Your task to perform on an android device: check out phone information Image 0: 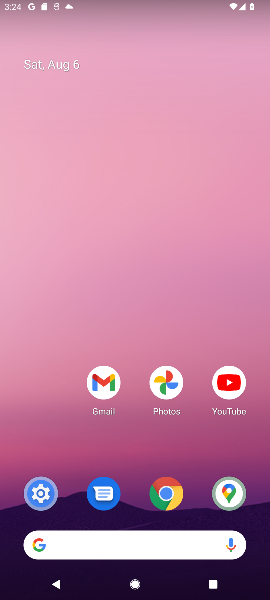
Step 0: drag from (204, 511) to (172, 39)
Your task to perform on an android device: check out phone information Image 1: 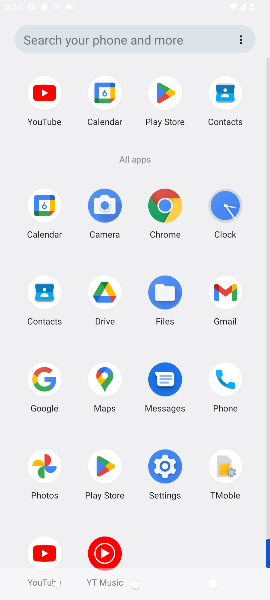
Step 1: drag from (166, 404) to (166, 36)
Your task to perform on an android device: check out phone information Image 2: 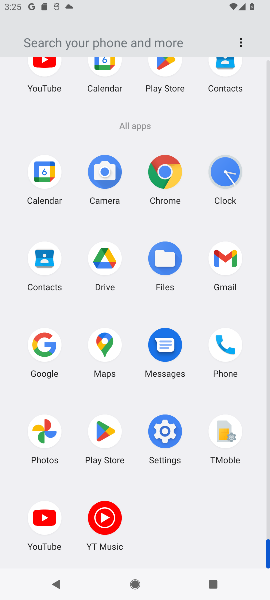
Step 2: click (162, 435)
Your task to perform on an android device: check out phone information Image 3: 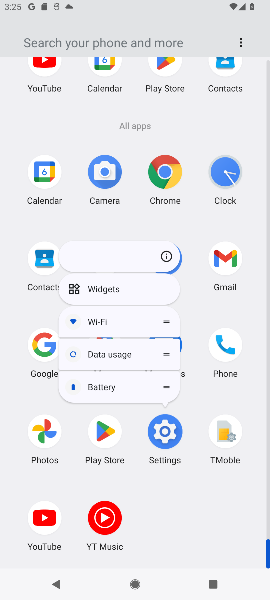
Step 3: click (162, 436)
Your task to perform on an android device: check out phone information Image 4: 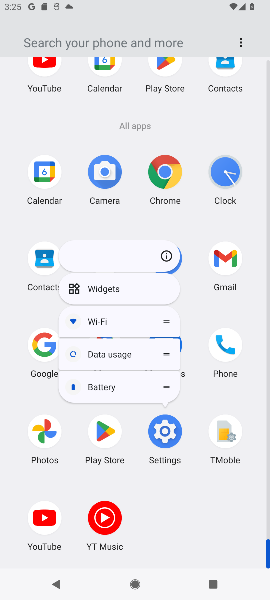
Step 4: click (165, 436)
Your task to perform on an android device: check out phone information Image 5: 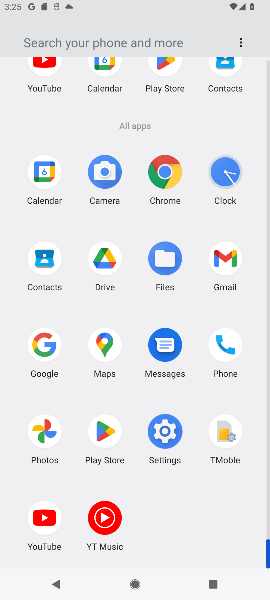
Step 5: click (165, 436)
Your task to perform on an android device: check out phone information Image 6: 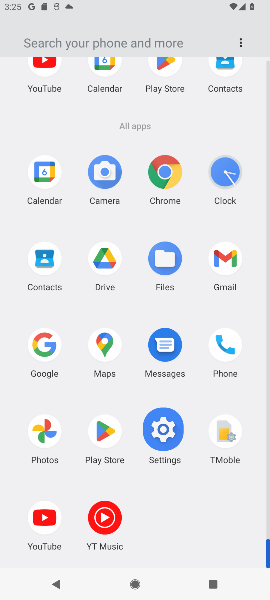
Step 6: click (165, 436)
Your task to perform on an android device: check out phone information Image 7: 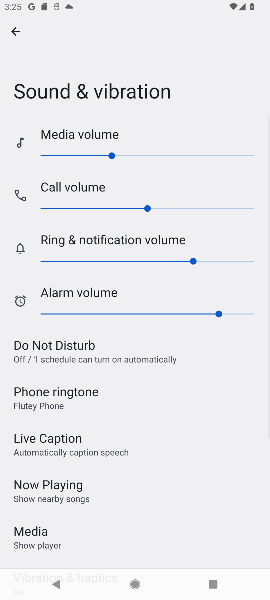
Step 7: click (14, 24)
Your task to perform on an android device: check out phone information Image 8: 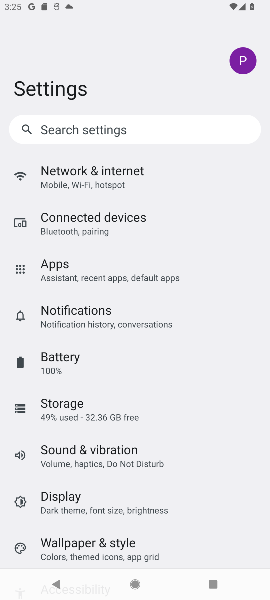
Step 8: drag from (128, 541) to (86, 242)
Your task to perform on an android device: check out phone information Image 9: 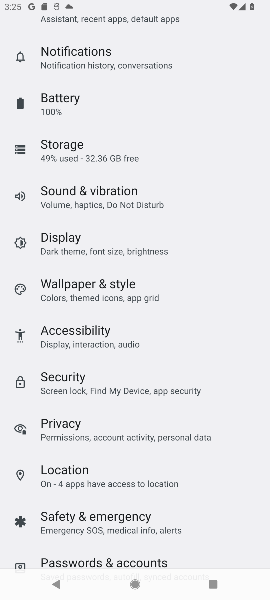
Step 9: drag from (105, 404) to (138, 154)
Your task to perform on an android device: check out phone information Image 10: 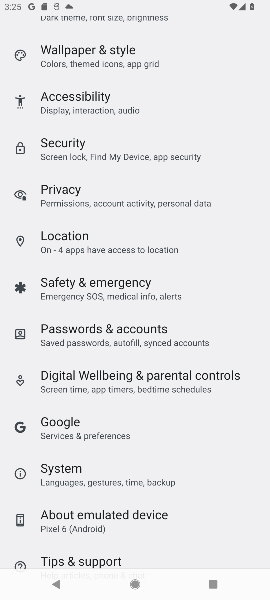
Step 10: drag from (148, 391) to (143, 121)
Your task to perform on an android device: check out phone information Image 11: 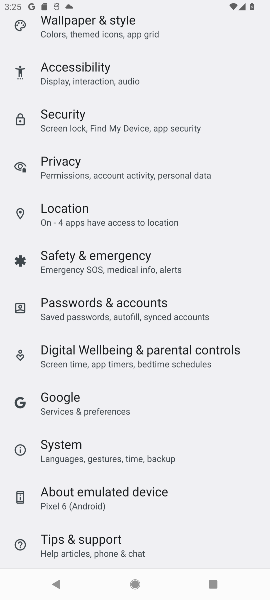
Step 11: drag from (154, 416) to (143, 224)
Your task to perform on an android device: check out phone information Image 12: 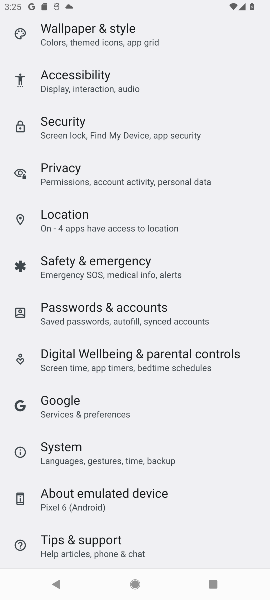
Step 12: click (79, 491)
Your task to perform on an android device: check out phone information Image 13: 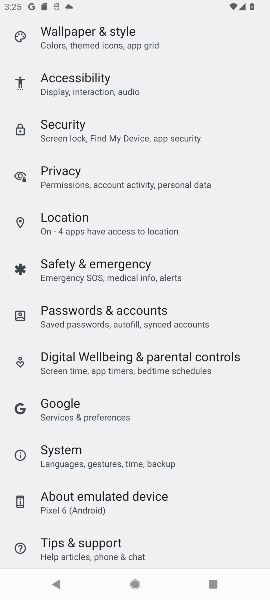
Step 13: click (84, 499)
Your task to perform on an android device: check out phone information Image 14: 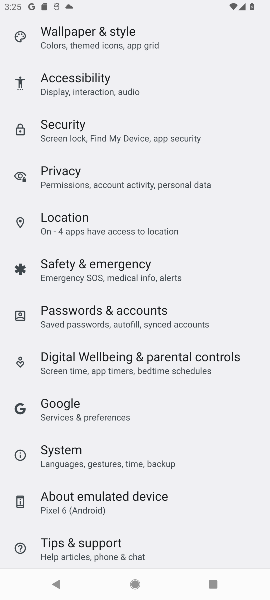
Step 14: click (87, 496)
Your task to perform on an android device: check out phone information Image 15: 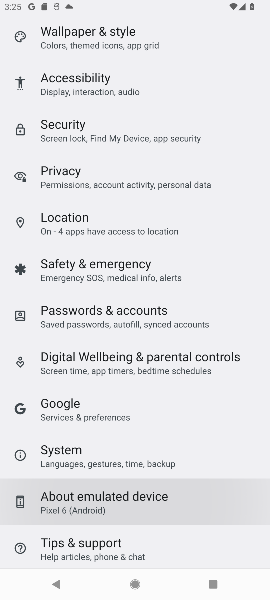
Step 15: click (90, 494)
Your task to perform on an android device: check out phone information Image 16: 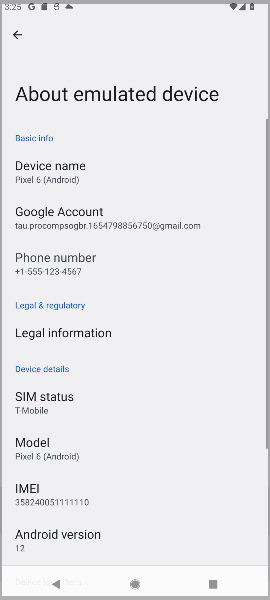
Step 16: click (93, 494)
Your task to perform on an android device: check out phone information Image 17: 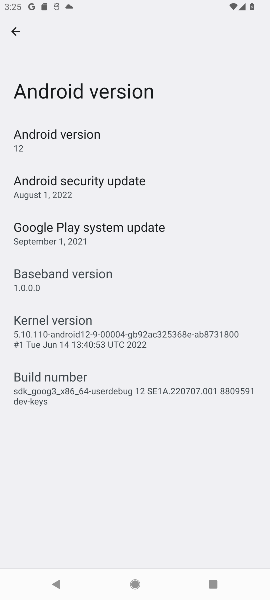
Step 17: task complete